Your task to perform on an android device: Toggle the flashlight Image 0: 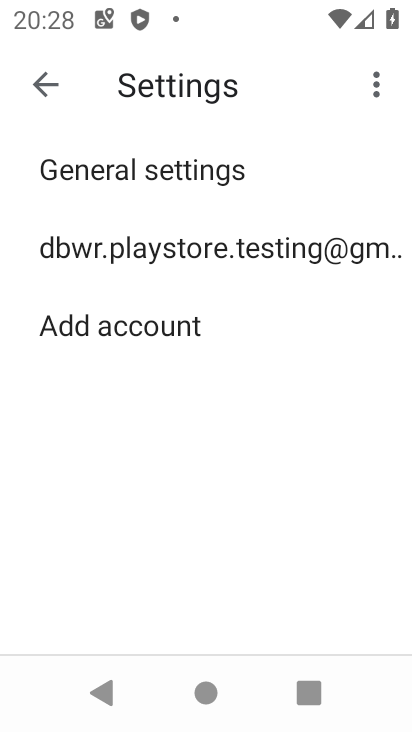
Step 0: drag from (274, 0) to (150, 516)
Your task to perform on an android device: Toggle the flashlight Image 1: 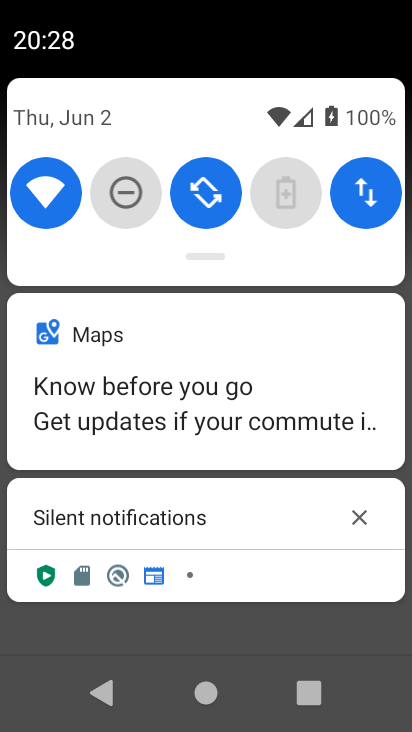
Step 1: task complete